Your task to perform on an android device: turn off javascript in the chrome app Image 0: 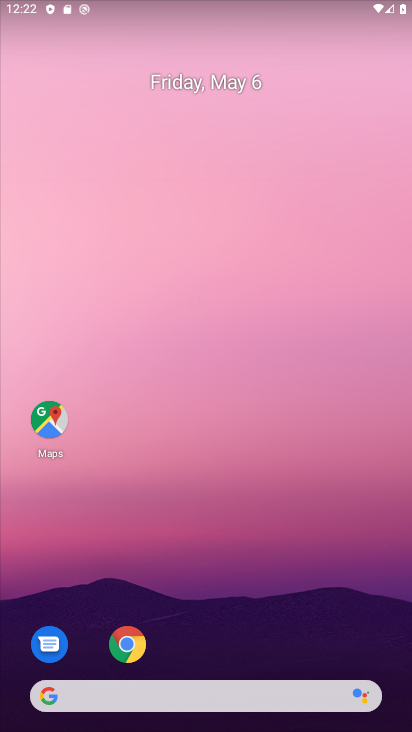
Step 0: click (296, 674)
Your task to perform on an android device: turn off javascript in the chrome app Image 1: 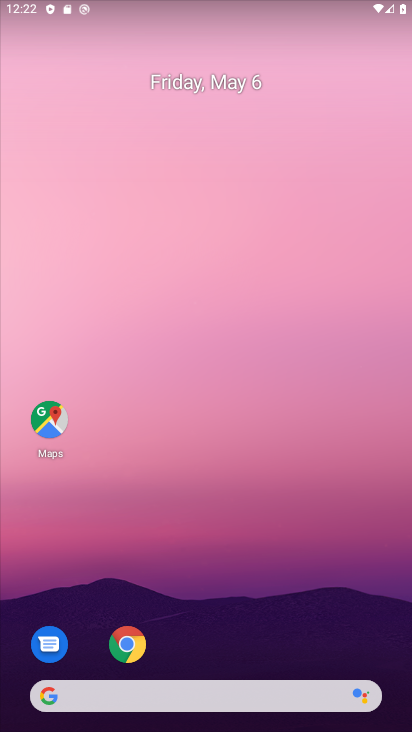
Step 1: drag from (296, 674) to (408, 473)
Your task to perform on an android device: turn off javascript in the chrome app Image 2: 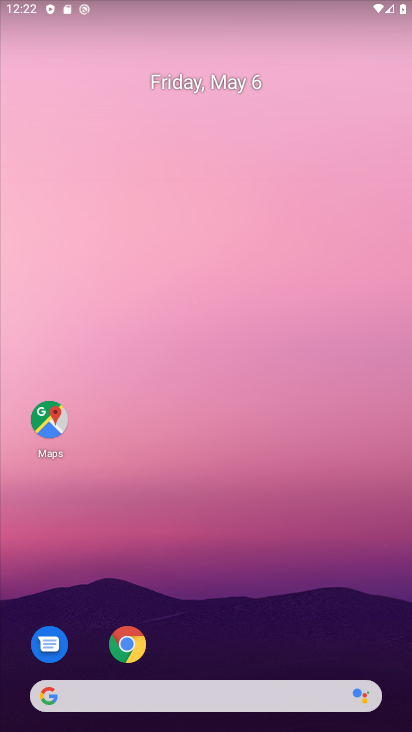
Step 2: drag from (313, 701) to (221, 122)
Your task to perform on an android device: turn off javascript in the chrome app Image 3: 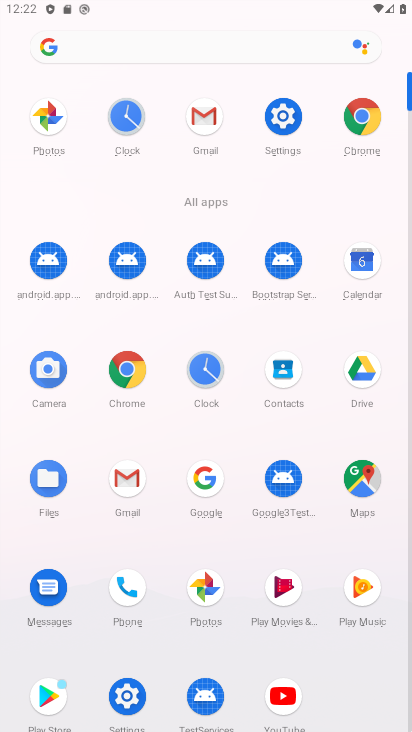
Step 3: click (135, 383)
Your task to perform on an android device: turn off javascript in the chrome app Image 4: 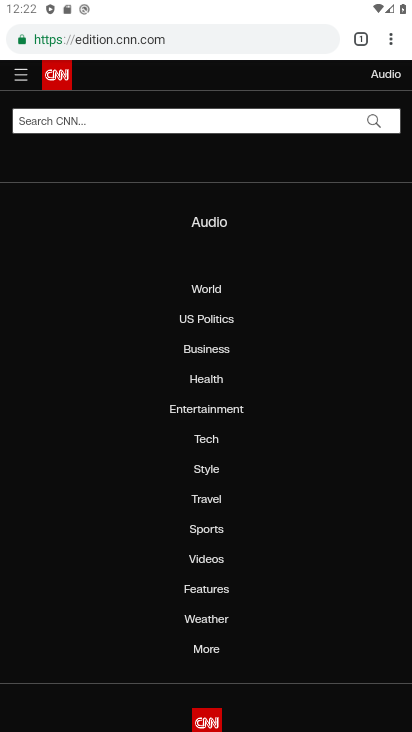
Step 4: click (387, 41)
Your task to perform on an android device: turn off javascript in the chrome app Image 5: 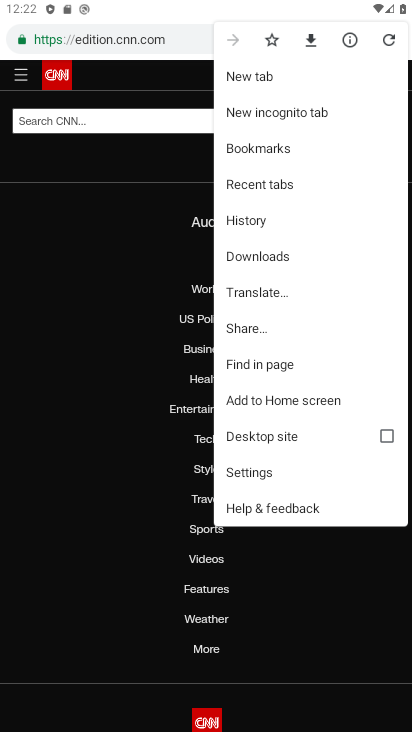
Step 5: click (281, 470)
Your task to perform on an android device: turn off javascript in the chrome app Image 6: 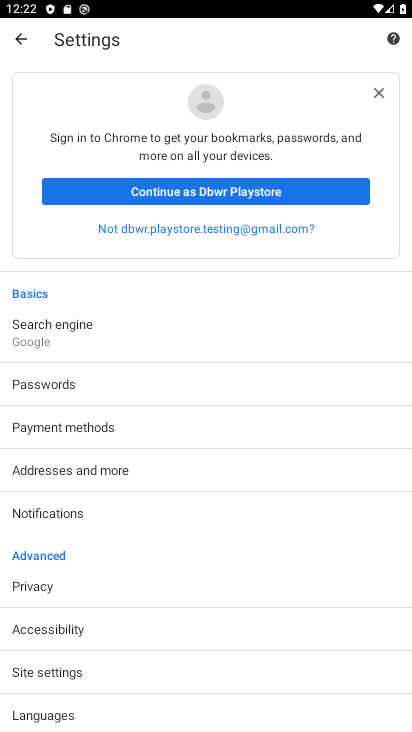
Step 6: click (123, 675)
Your task to perform on an android device: turn off javascript in the chrome app Image 7: 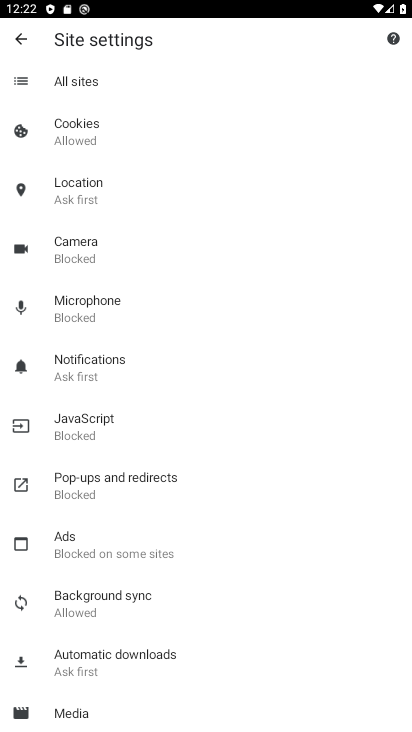
Step 7: click (125, 431)
Your task to perform on an android device: turn off javascript in the chrome app Image 8: 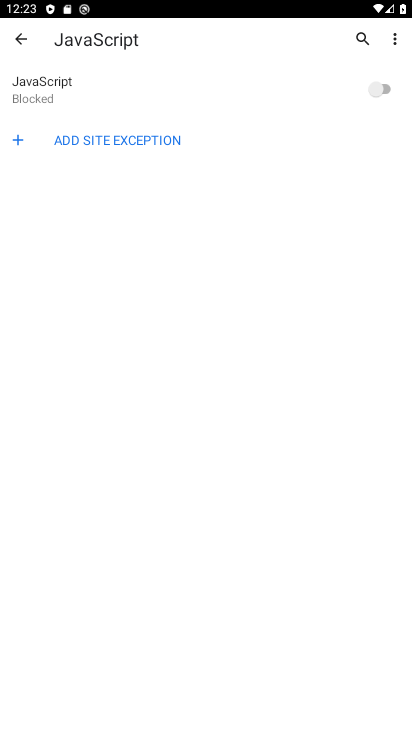
Step 8: task complete